Your task to perform on an android device: toggle notifications settings in the gmail app Image 0: 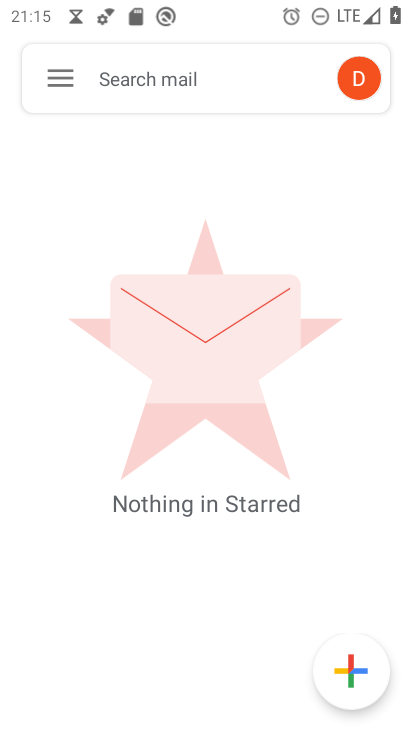
Step 0: press home button
Your task to perform on an android device: toggle notifications settings in the gmail app Image 1: 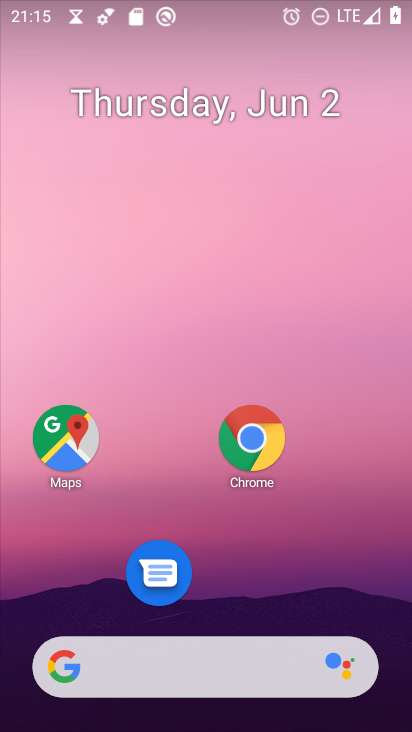
Step 1: drag from (192, 674) to (330, 91)
Your task to perform on an android device: toggle notifications settings in the gmail app Image 2: 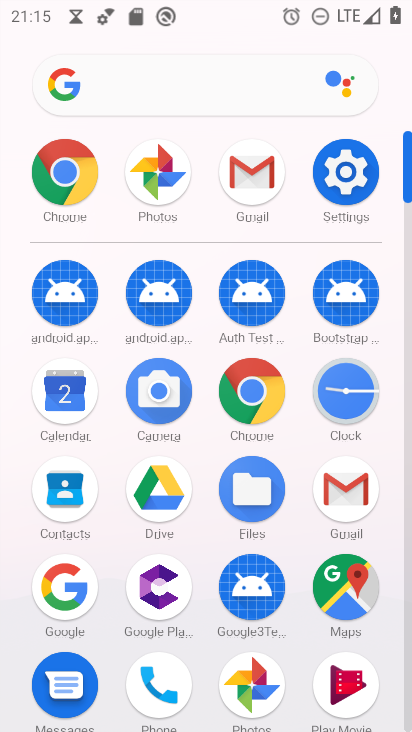
Step 2: click (257, 182)
Your task to perform on an android device: toggle notifications settings in the gmail app Image 3: 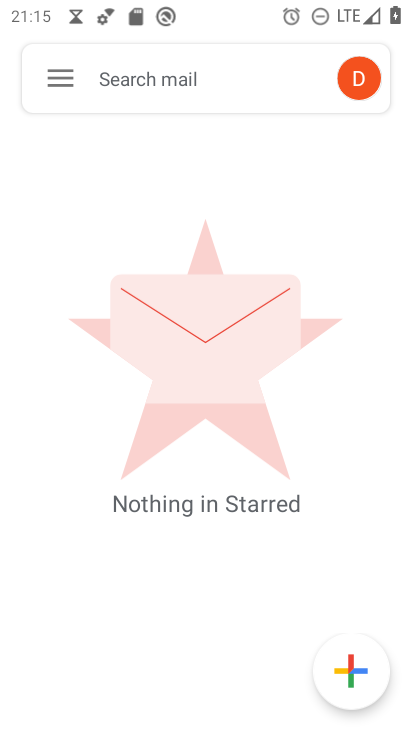
Step 3: click (71, 74)
Your task to perform on an android device: toggle notifications settings in the gmail app Image 4: 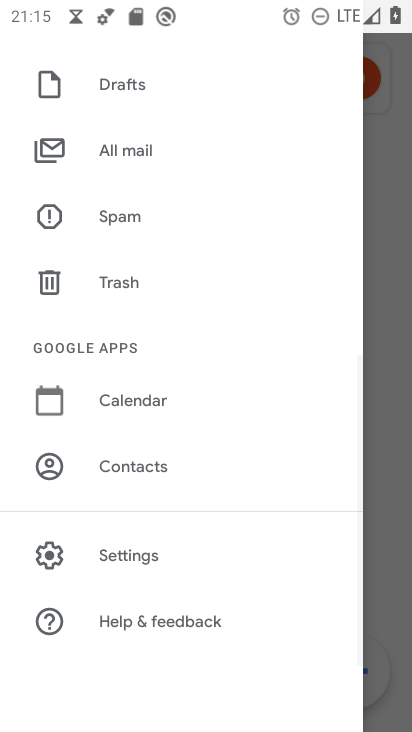
Step 4: click (146, 556)
Your task to perform on an android device: toggle notifications settings in the gmail app Image 5: 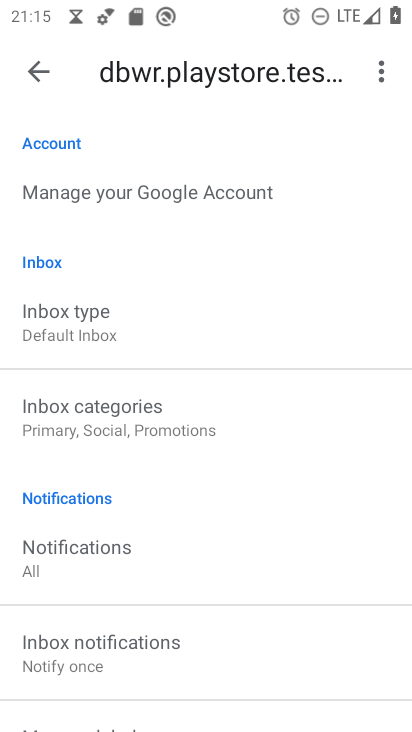
Step 5: click (65, 540)
Your task to perform on an android device: toggle notifications settings in the gmail app Image 6: 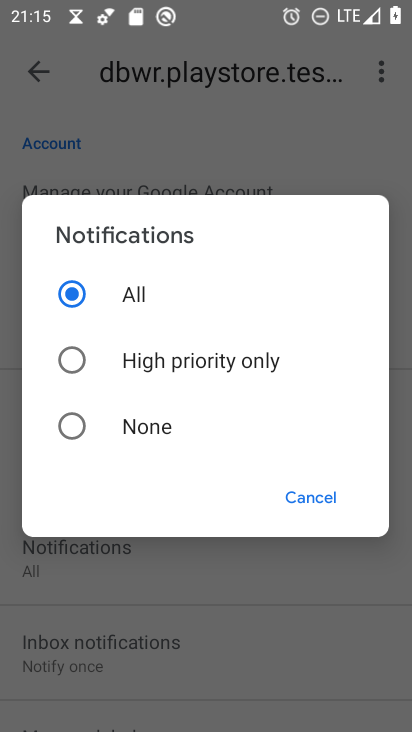
Step 6: click (71, 427)
Your task to perform on an android device: toggle notifications settings in the gmail app Image 7: 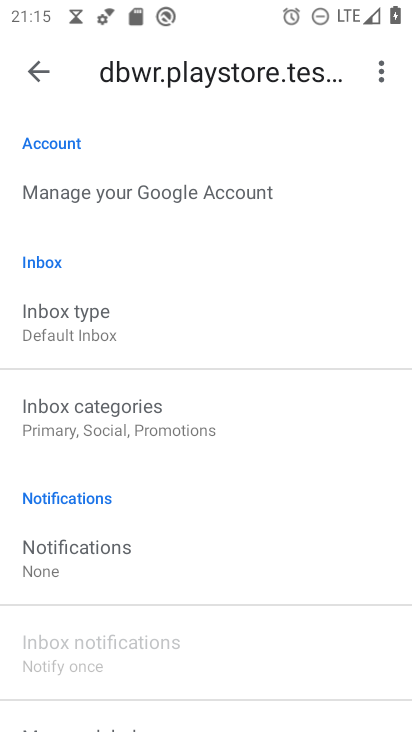
Step 7: task complete